Your task to perform on an android device: toggle pop-ups in chrome Image 0: 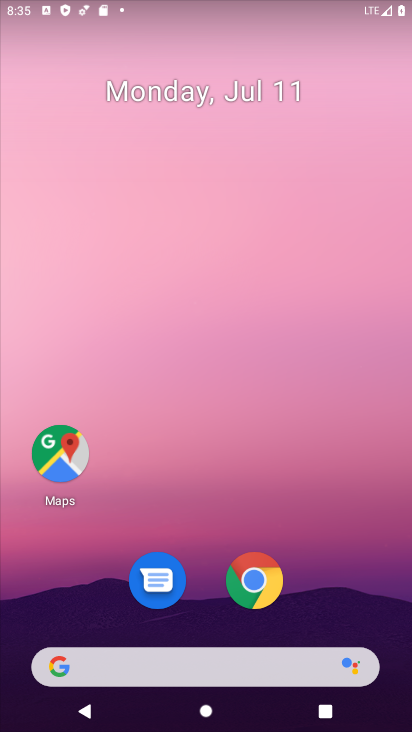
Step 0: click (254, 586)
Your task to perform on an android device: toggle pop-ups in chrome Image 1: 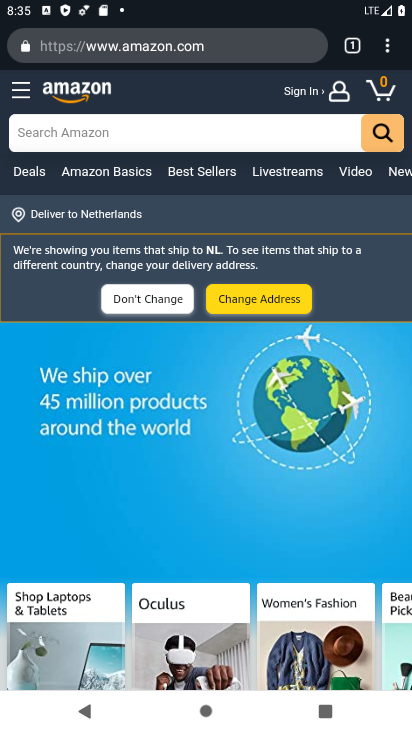
Step 1: click (389, 47)
Your task to perform on an android device: toggle pop-ups in chrome Image 2: 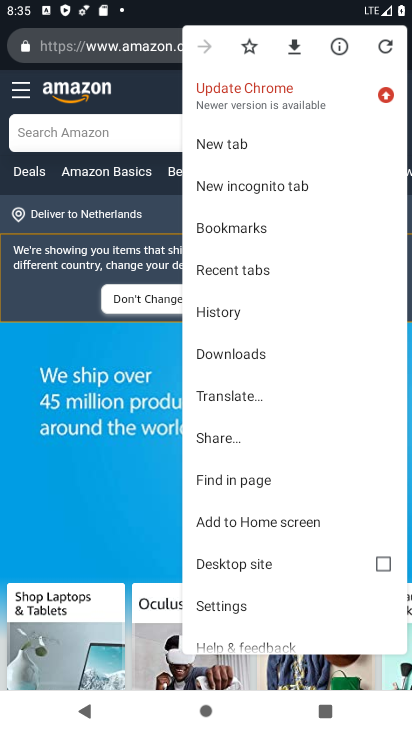
Step 2: click (226, 604)
Your task to perform on an android device: toggle pop-ups in chrome Image 3: 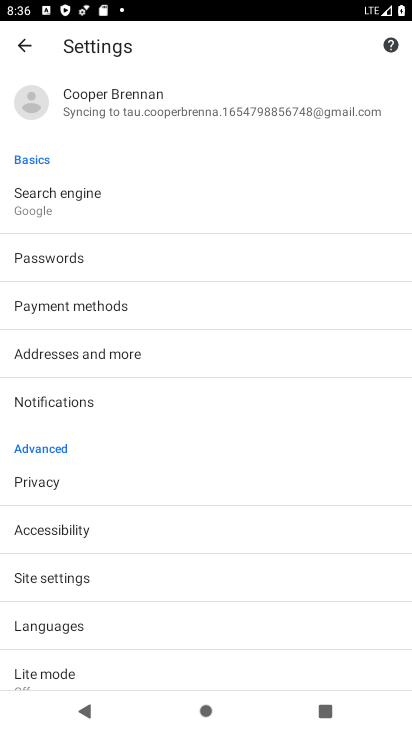
Step 3: click (82, 576)
Your task to perform on an android device: toggle pop-ups in chrome Image 4: 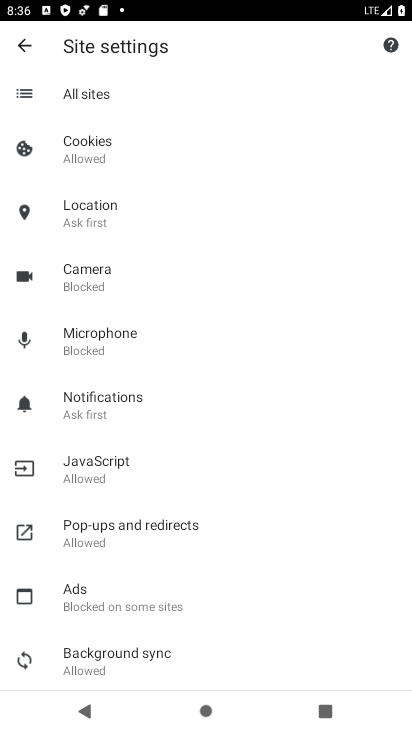
Step 4: click (157, 527)
Your task to perform on an android device: toggle pop-ups in chrome Image 5: 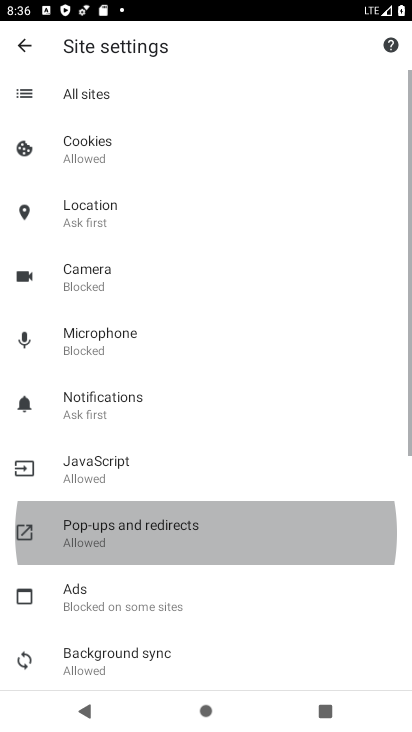
Step 5: click (157, 527)
Your task to perform on an android device: toggle pop-ups in chrome Image 6: 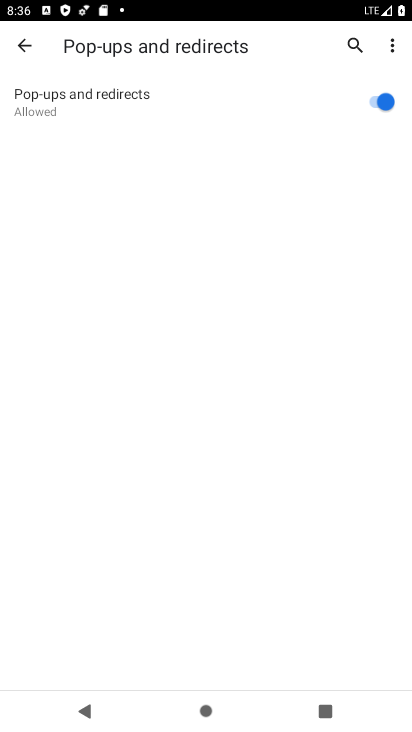
Step 6: click (385, 103)
Your task to perform on an android device: toggle pop-ups in chrome Image 7: 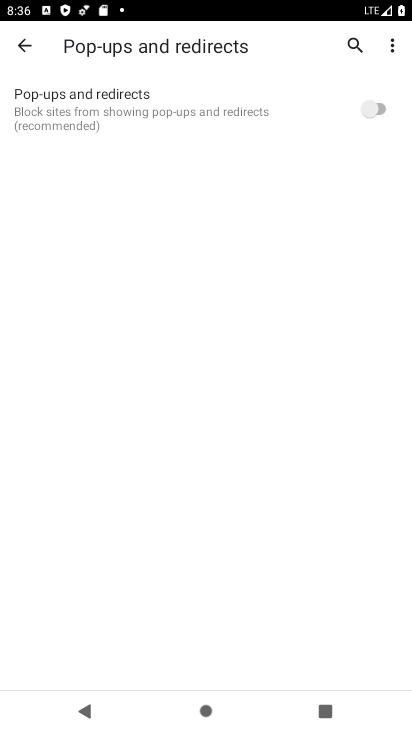
Step 7: task complete